Your task to perform on an android device: toggle javascript in the chrome app Image 0: 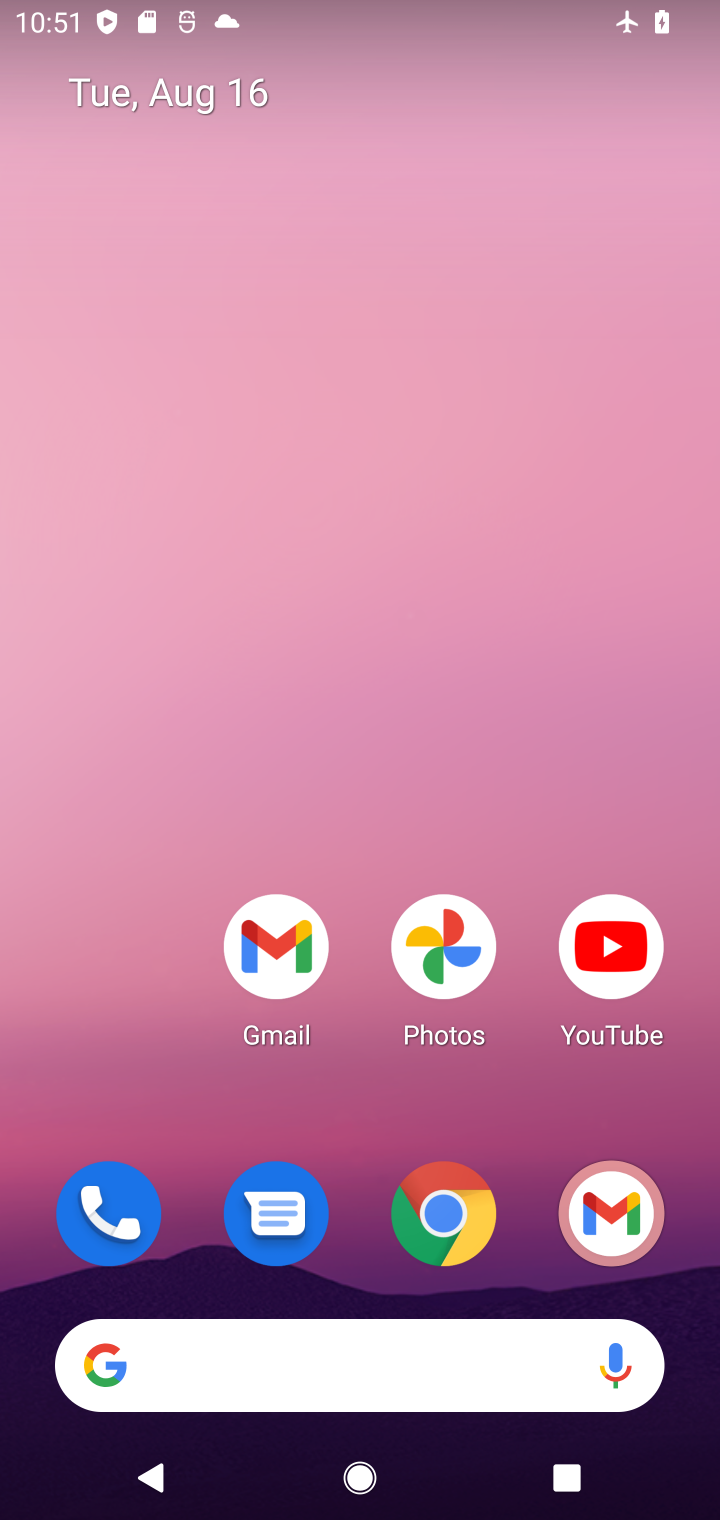
Step 0: drag from (301, 1181) to (288, 376)
Your task to perform on an android device: toggle javascript in the chrome app Image 1: 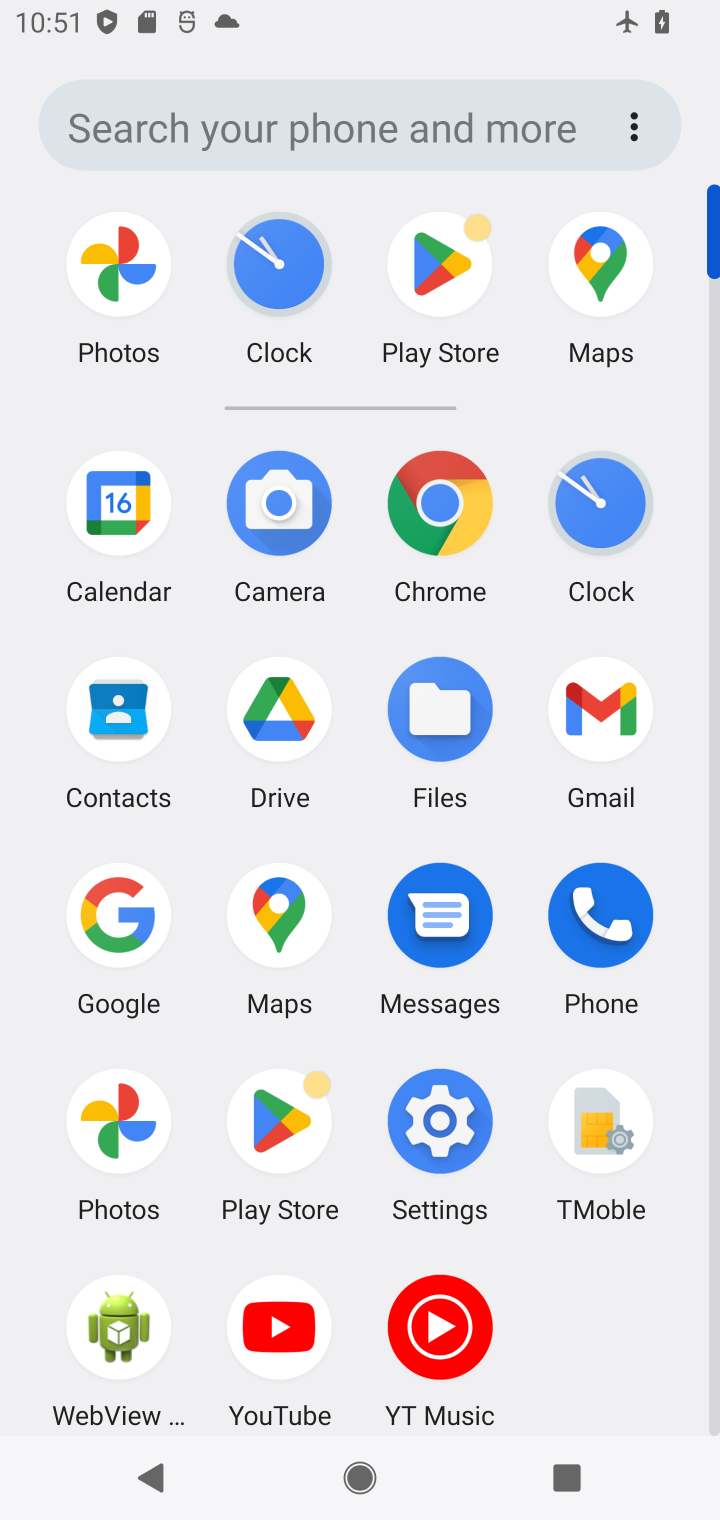
Step 1: click (426, 509)
Your task to perform on an android device: toggle javascript in the chrome app Image 2: 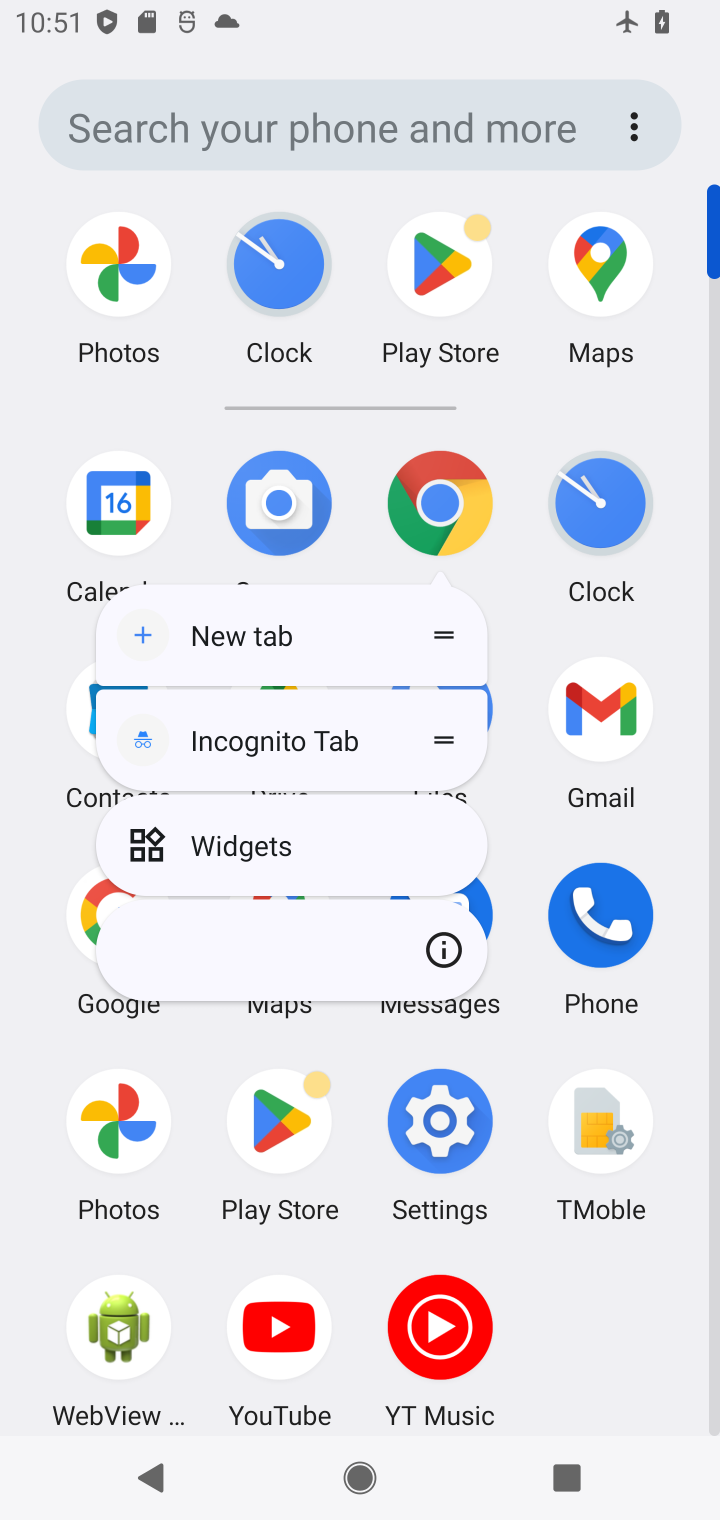
Step 2: click (453, 496)
Your task to perform on an android device: toggle javascript in the chrome app Image 3: 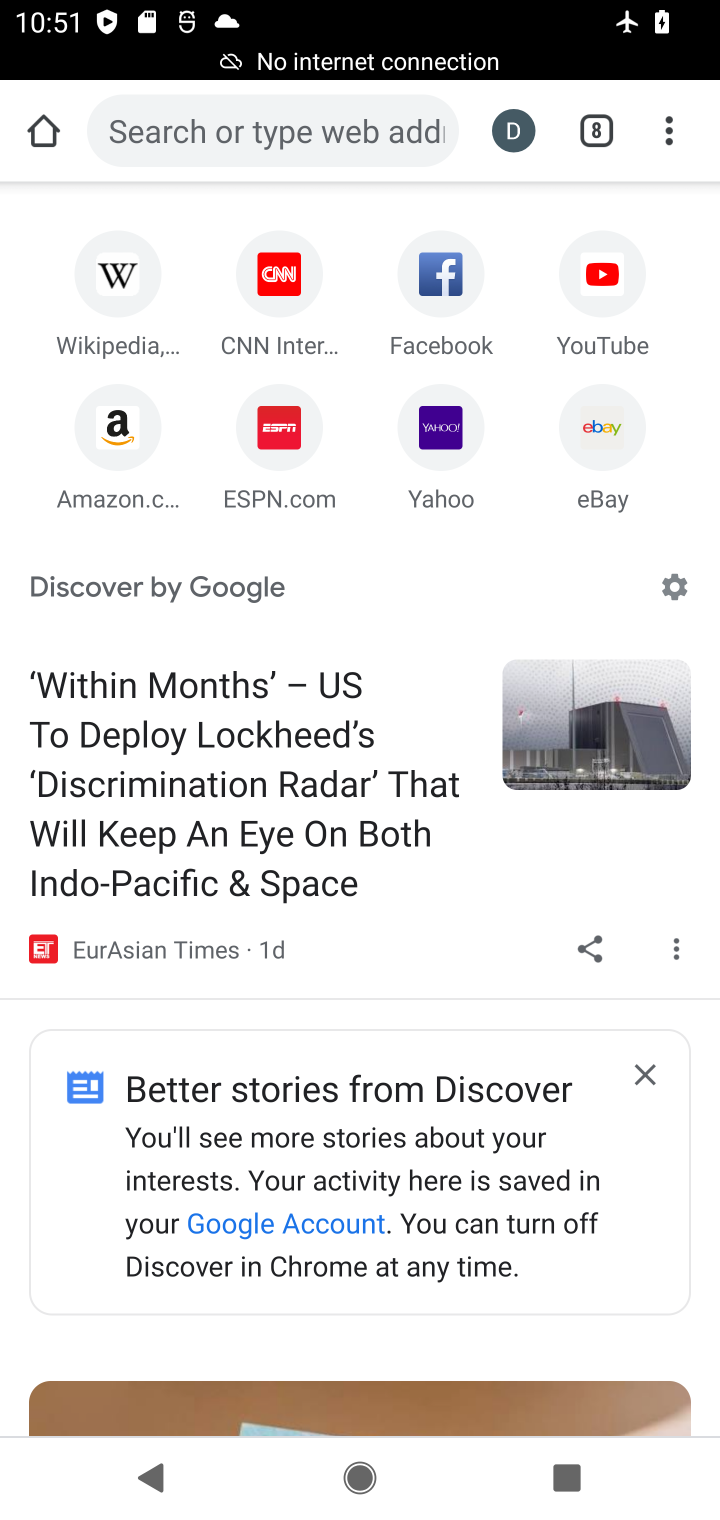
Step 3: click (688, 140)
Your task to perform on an android device: toggle javascript in the chrome app Image 4: 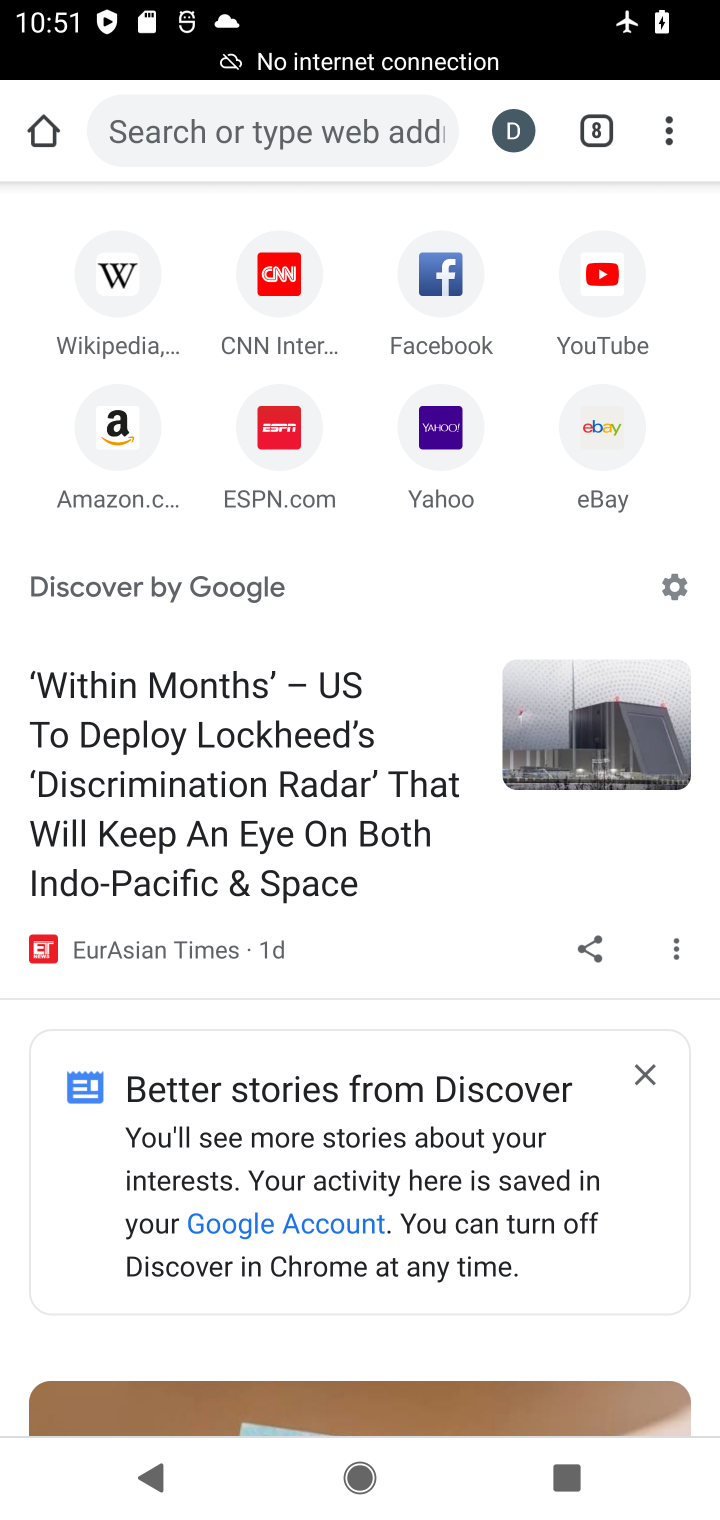
Step 4: click (676, 115)
Your task to perform on an android device: toggle javascript in the chrome app Image 5: 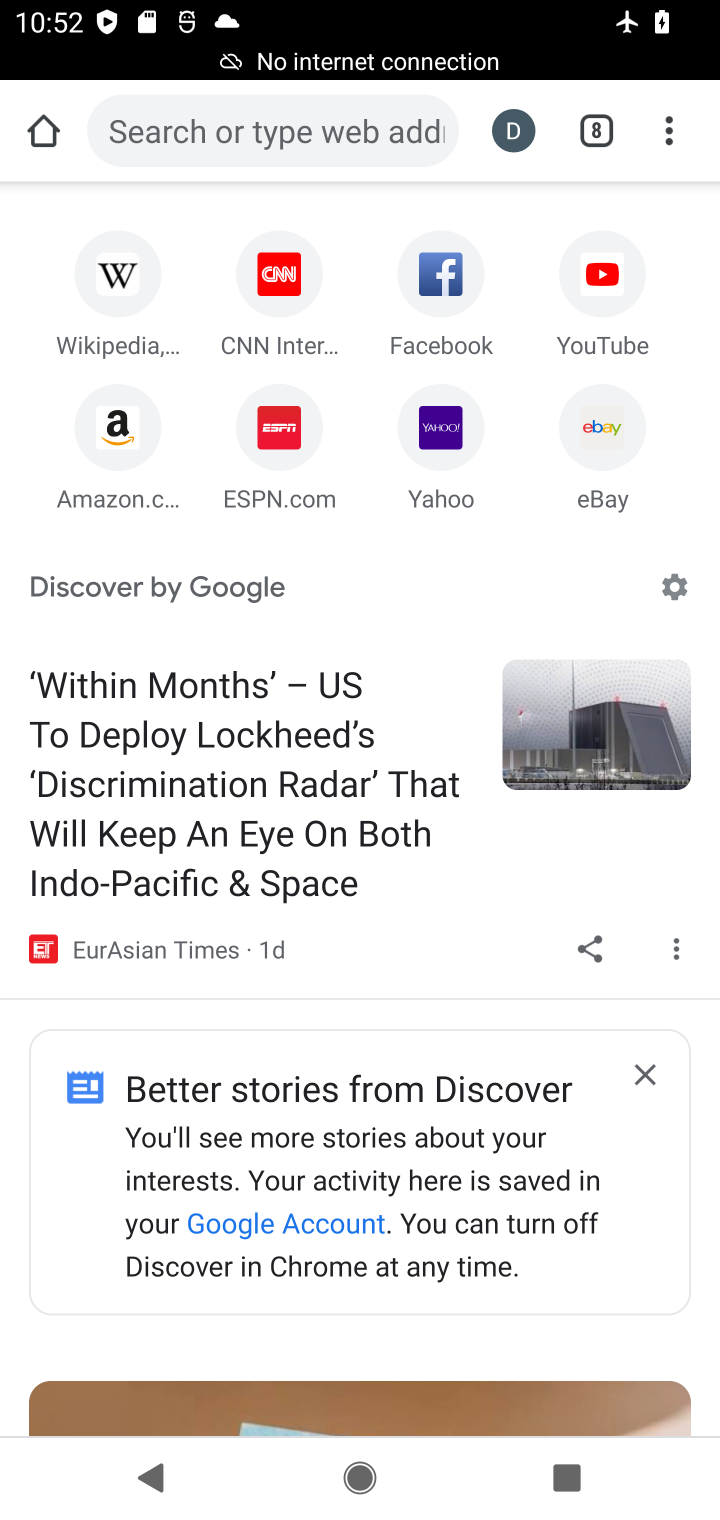
Step 5: click (672, 123)
Your task to perform on an android device: toggle javascript in the chrome app Image 6: 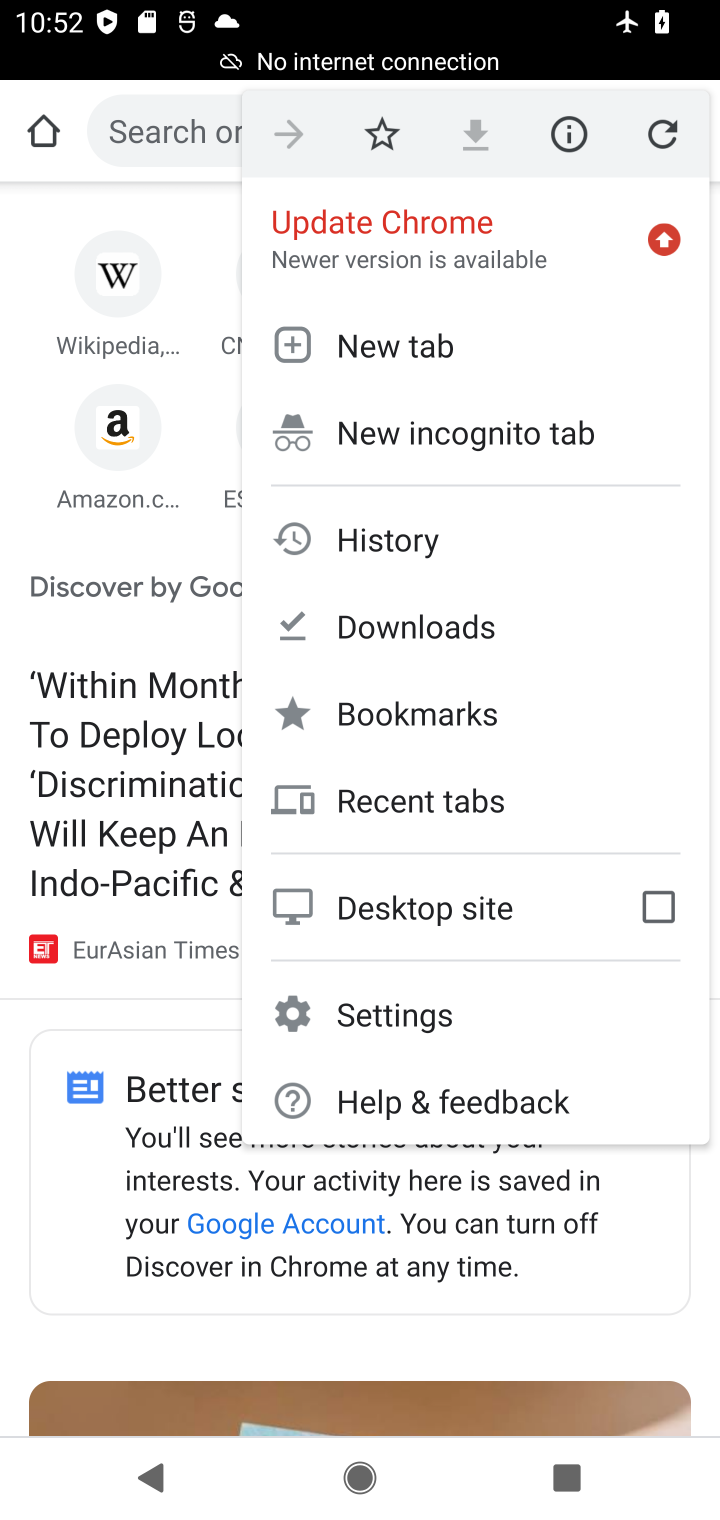
Step 6: click (370, 1020)
Your task to perform on an android device: toggle javascript in the chrome app Image 7: 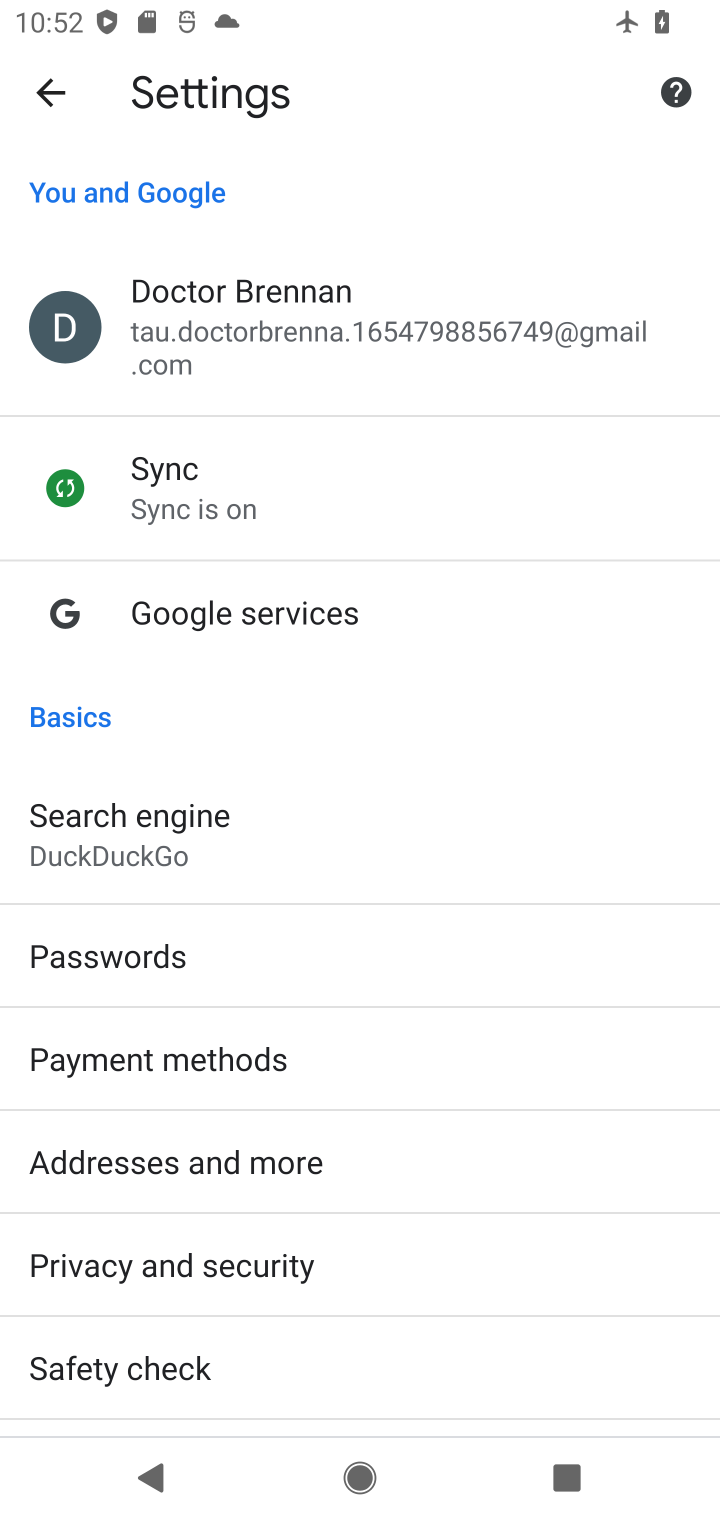
Step 7: drag from (203, 1296) to (222, 300)
Your task to perform on an android device: toggle javascript in the chrome app Image 8: 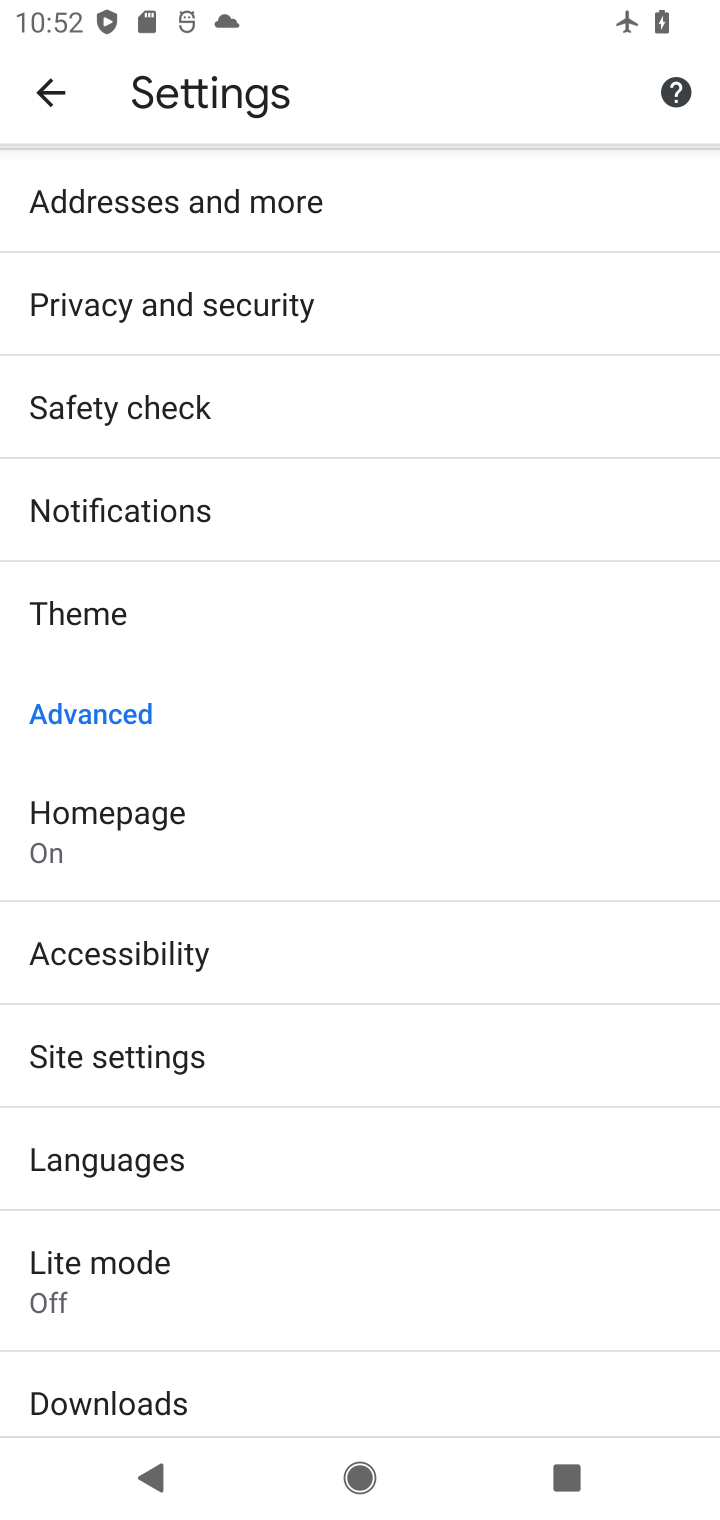
Step 8: click (203, 1059)
Your task to perform on an android device: toggle javascript in the chrome app Image 9: 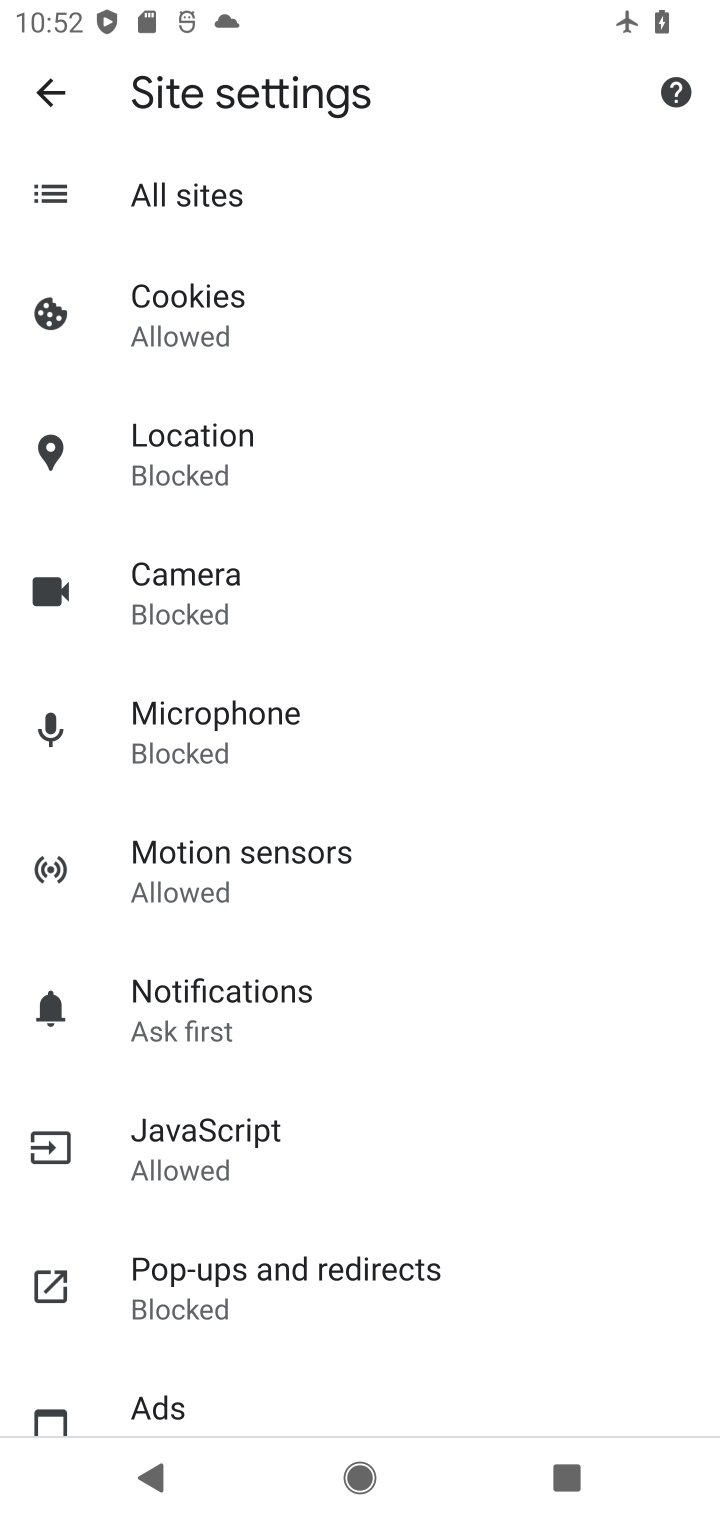
Step 9: click (258, 1158)
Your task to perform on an android device: toggle javascript in the chrome app Image 10: 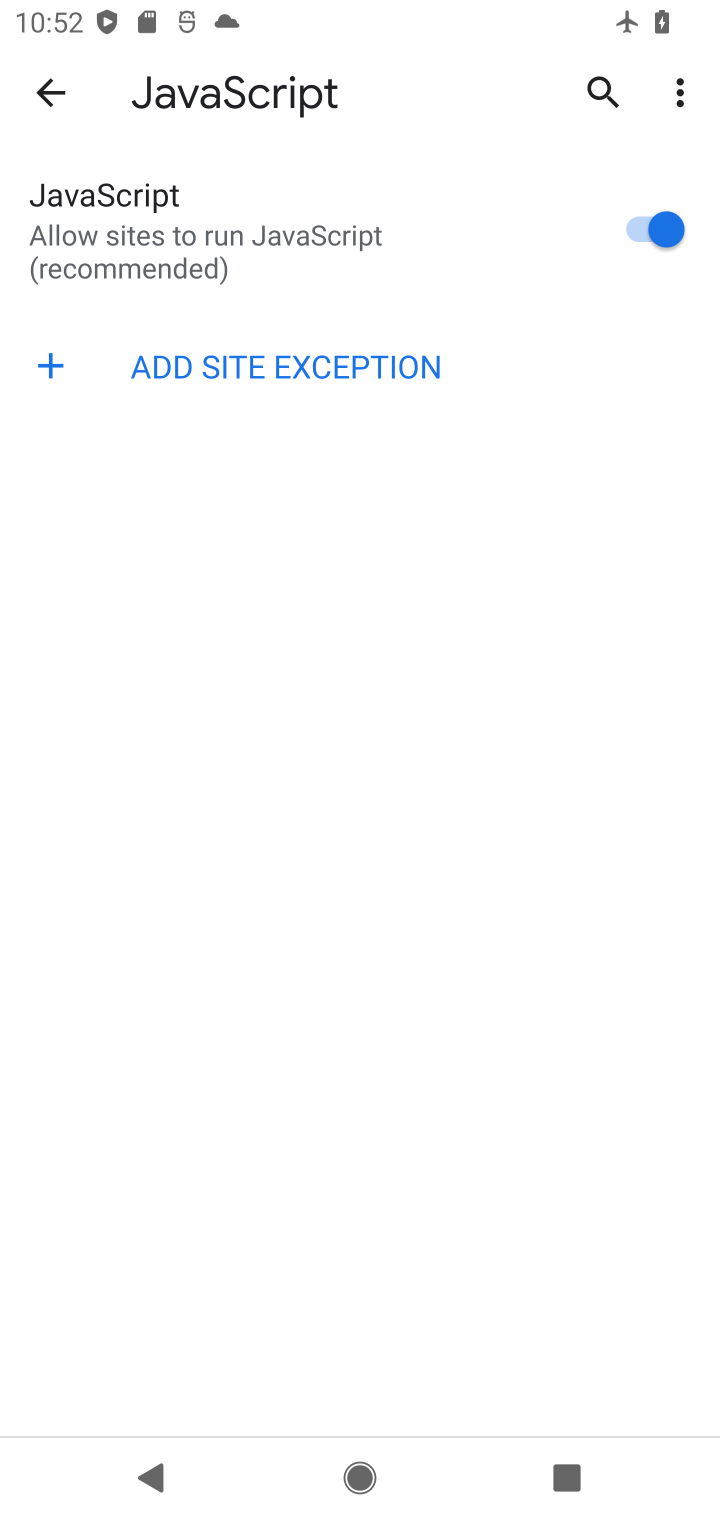
Step 10: click (655, 225)
Your task to perform on an android device: toggle javascript in the chrome app Image 11: 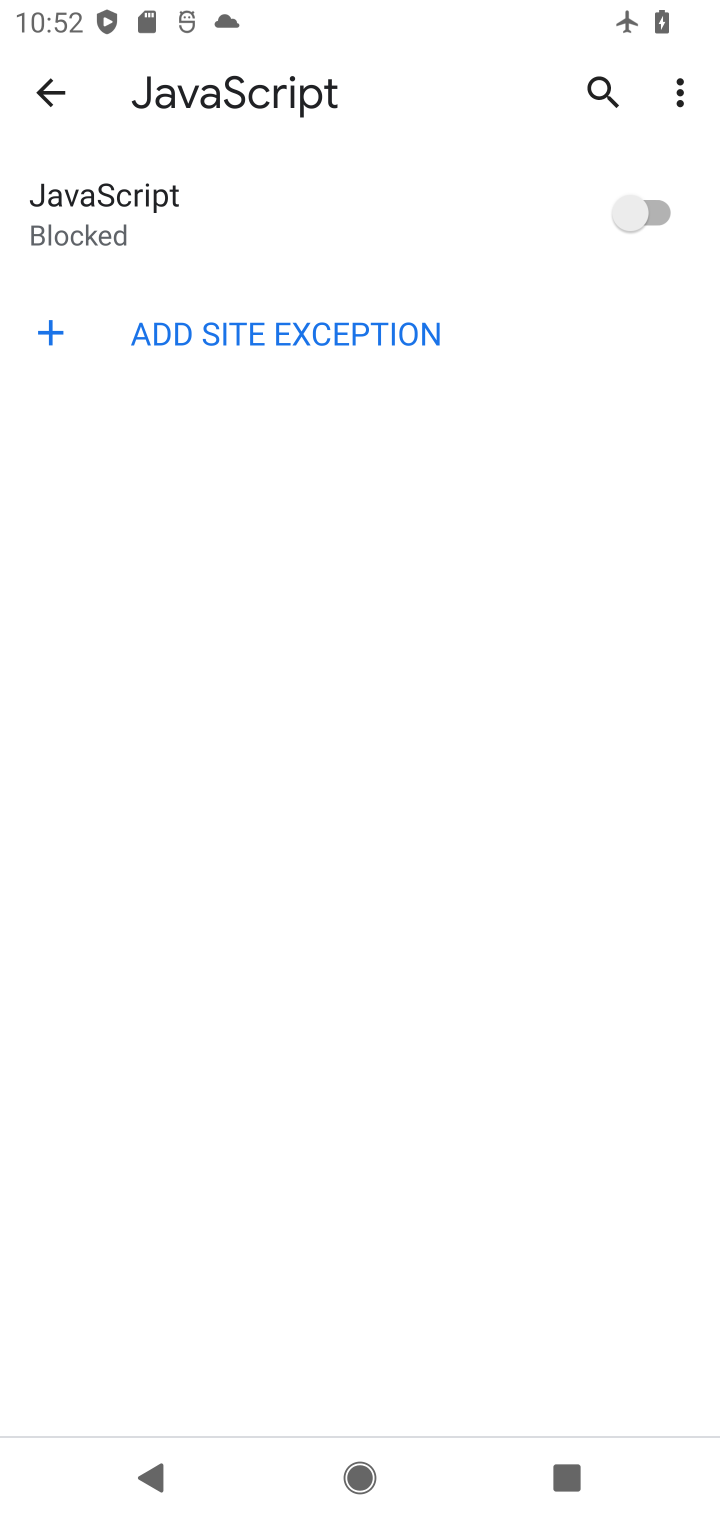
Step 11: task complete